Your task to perform on an android device: Show me popular games on the Play Store Image 0: 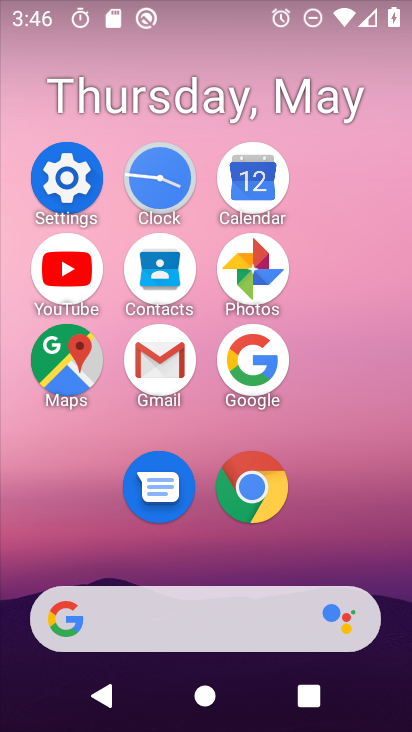
Step 0: drag from (126, 564) to (121, 163)
Your task to perform on an android device: Show me popular games on the Play Store Image 1: 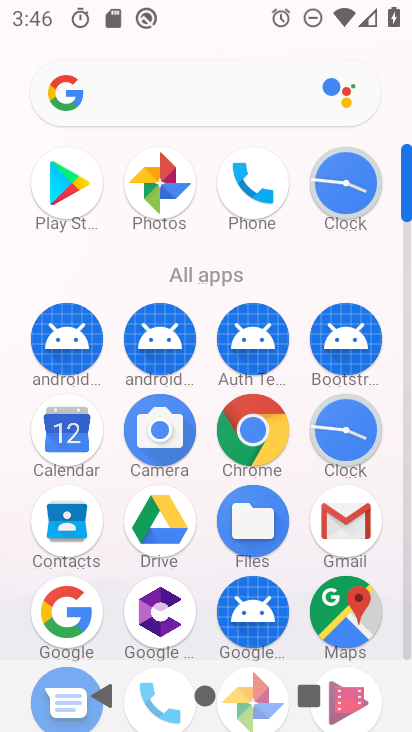
Step 1: click (51, 189)
Your task to perform on an android device: Show me popular games on the Play Store Image 2: 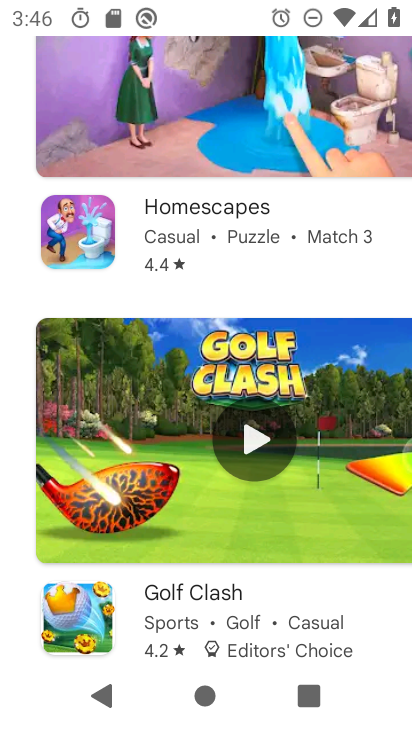
Step 2: press back button
Your task to perform on an android device: Show me popular games on the Play Store Image 3: 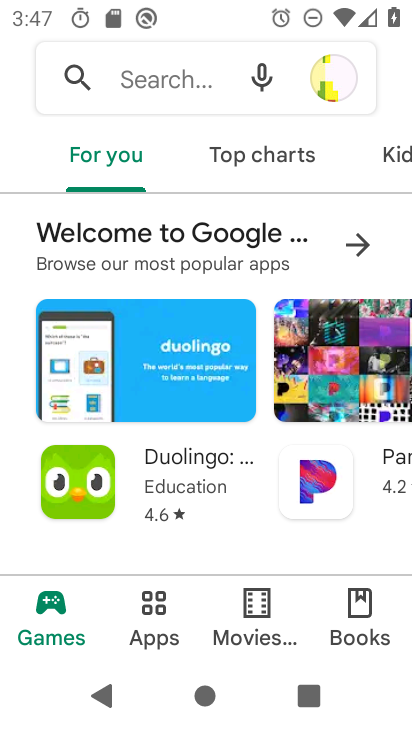
Step 3: drag from (263, 521) to (232, 147)
Your task to perform on an android device: Show me popular games on the Play Store Image 4: 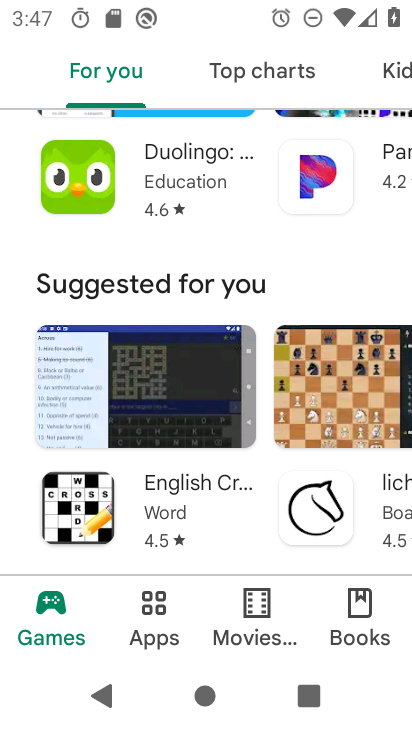
Step 4: drag from (221, 528) to (222, 119)
Your task to perform on an android device: Show me popular games on the Play Store Image 5: 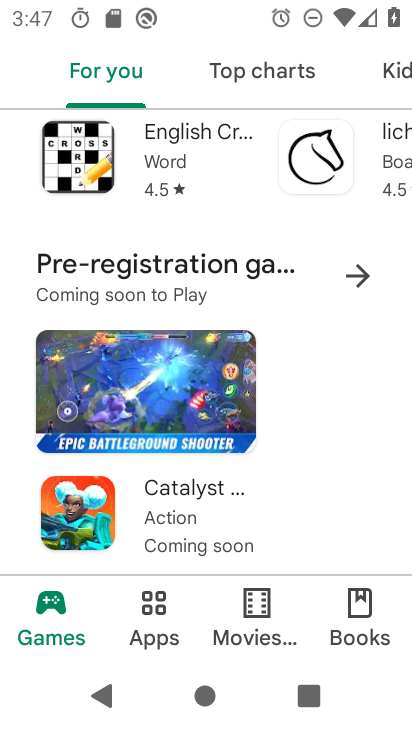
Step 5: drag from (298, 484) to (260, 131)
Your task to perform on an android device: Show me popular games on the Play Store Image 6: 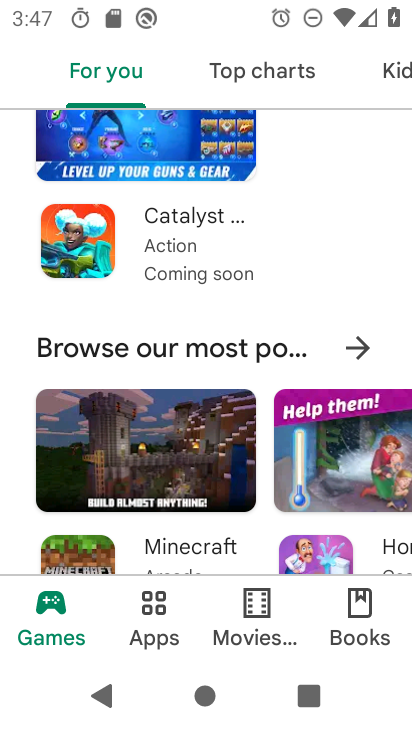
Step 6: click (300, 353)
Your task to perform on an android device: Show me popular games on the Play Store Image 7: 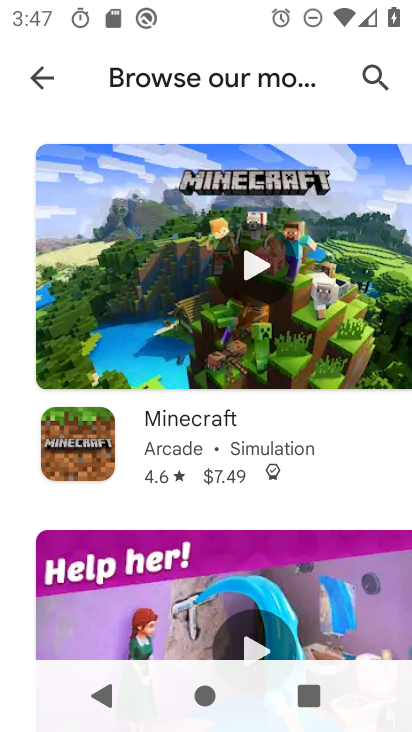
Step 7: task complete